Your task to perform on an android device: What's the weather today? Image 0: 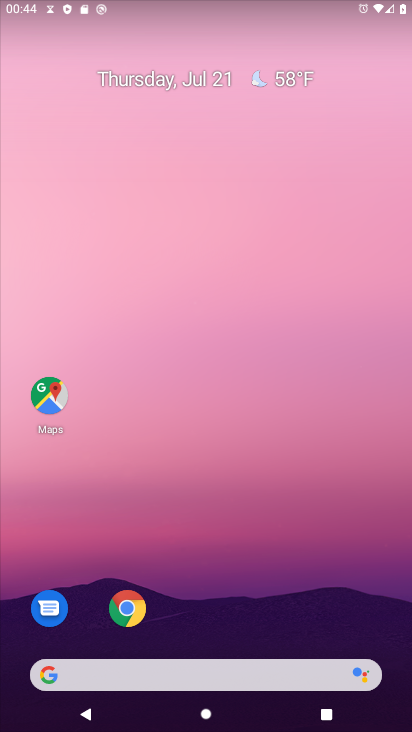
Step 0: press home button
Your task to perform on an android device: What's the weather today? Image 1: 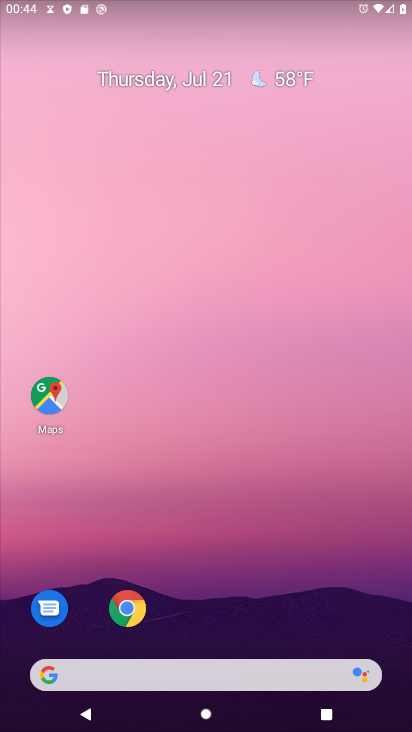
Step 1: click (282, 70)
Your task to perform on an android device: What's the weather today? Image 2: 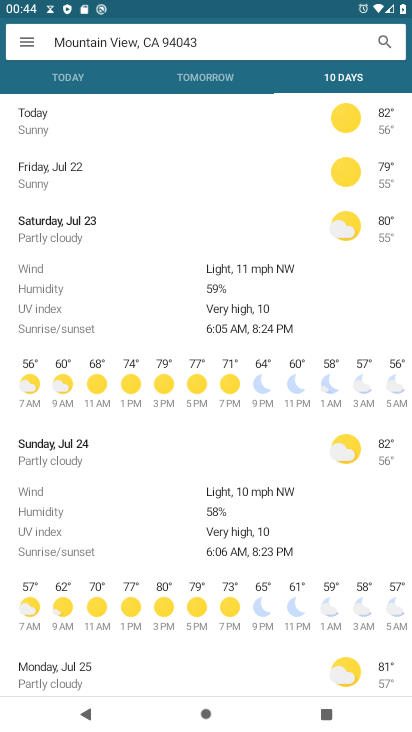
Step 2: click (66, 80)
Your task to perform on an android device: What's the weather today? Image 3: 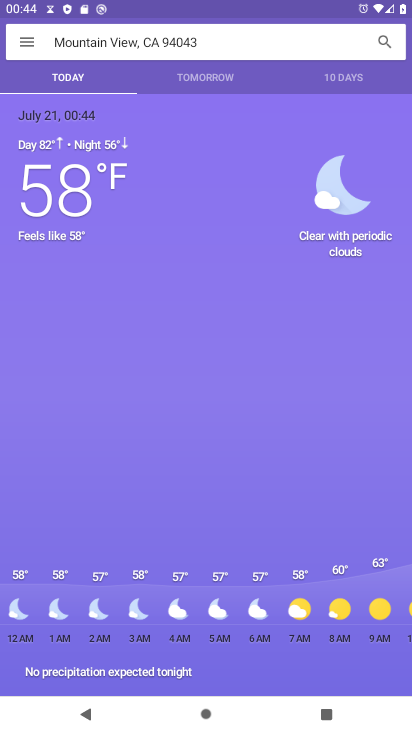
Step 3: task complete